Your task to perform on an android device: Turn on the flashlight Image 0: 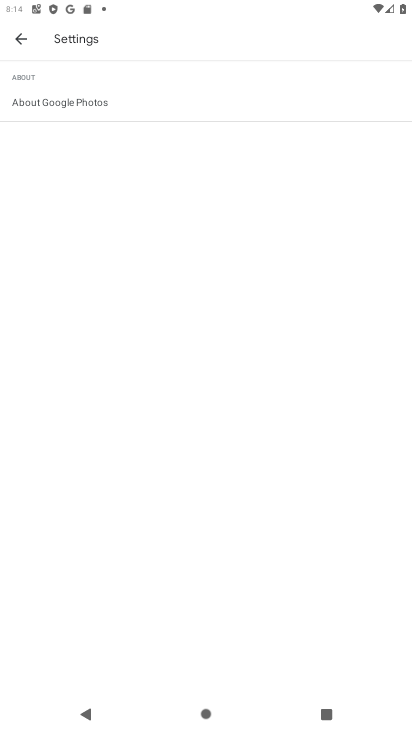
Step 0: press home button
Your task to perform on an android device: Turn on the flashlight Image 1: 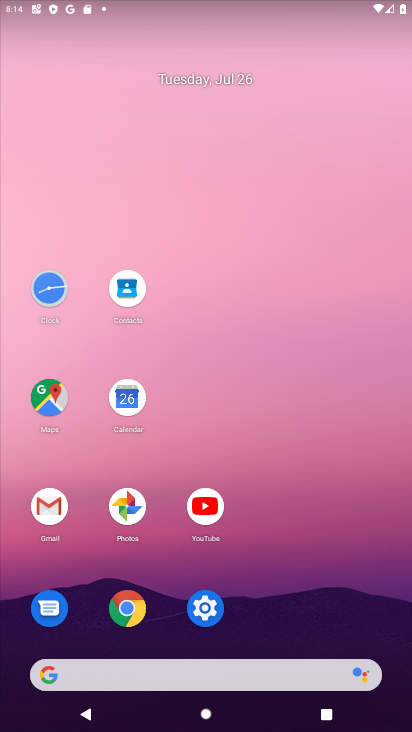
Step 1: click (204, 607)
Your task to perform on an android device: Turn on the flashlight Image 2: 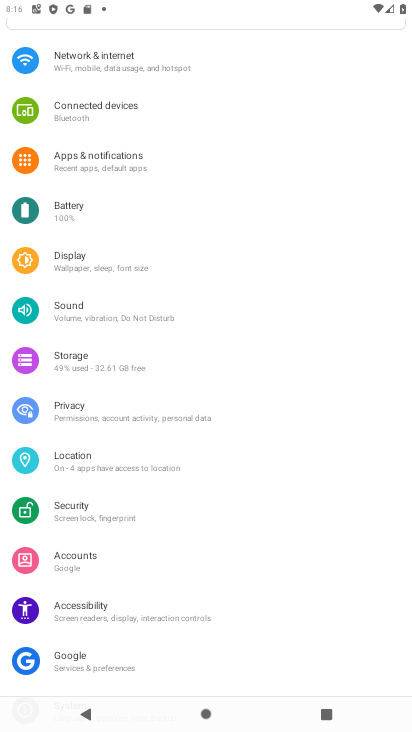
Step 2: click (67, 257)
Your task to perform on an android device: Turn on the flashlight Image 3: 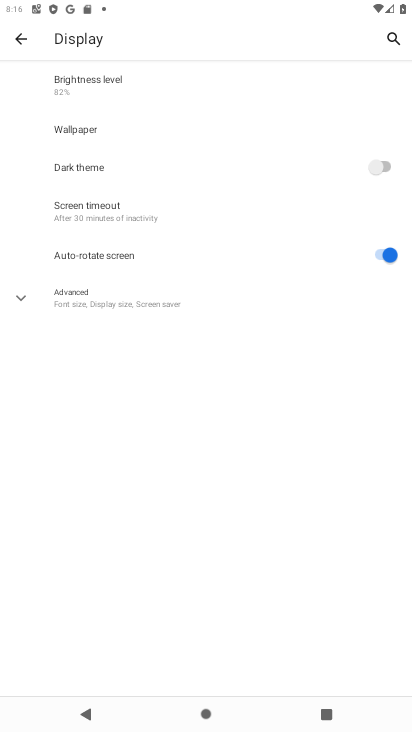
Step 3: task complete